Your task to perform on an android device: Open my contact list Image 0: 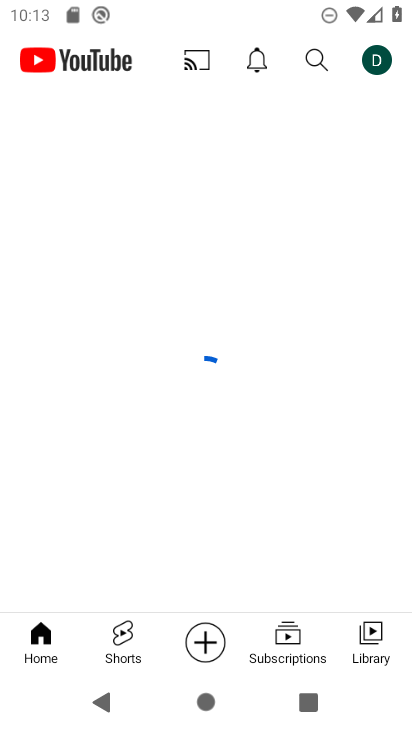
Step 0: press back button
Your task to perform on an android device: Open my contact list Image 1: 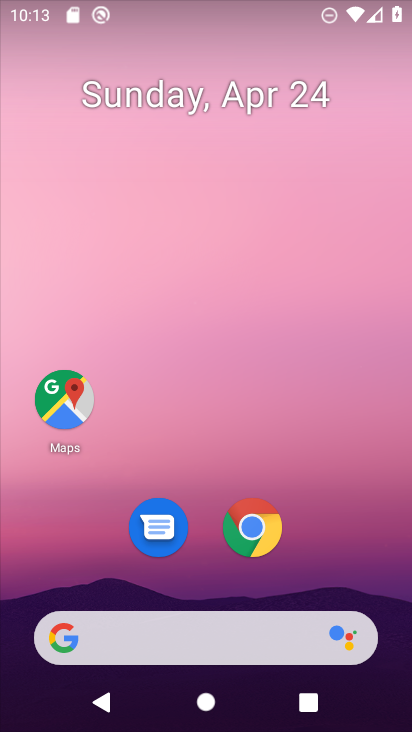
Step 1: drag from (396, 617) to (168, 62)
Your task to perform on an android device: Open my contact list Image 2: 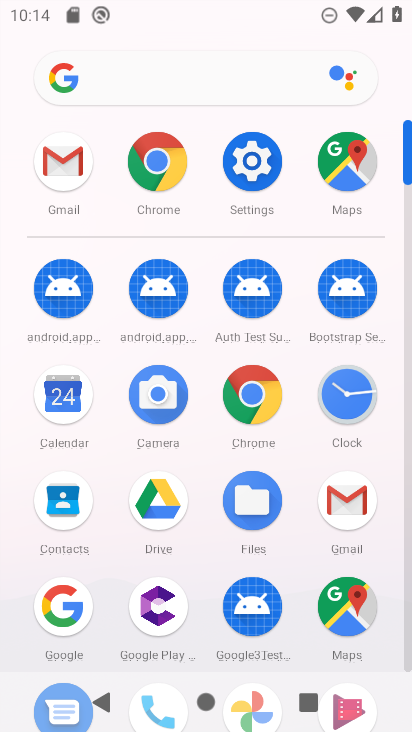
Step 2: click (58, 521)
Your task to perform on an android device: Open my contact list Image 3: 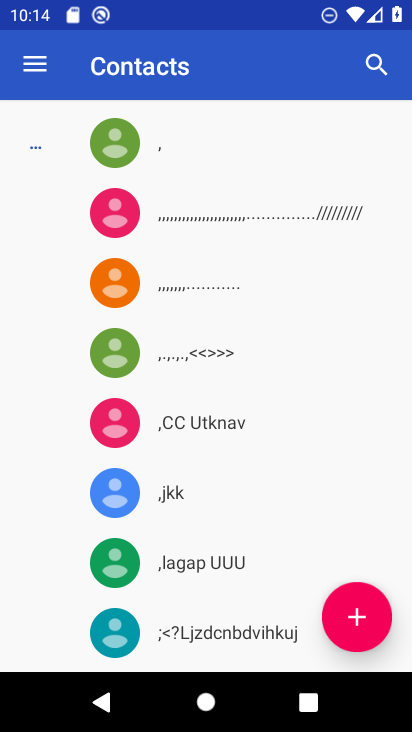
Step 3: task complete